Your task to perform on an android device: turn notification dots off Image 0: 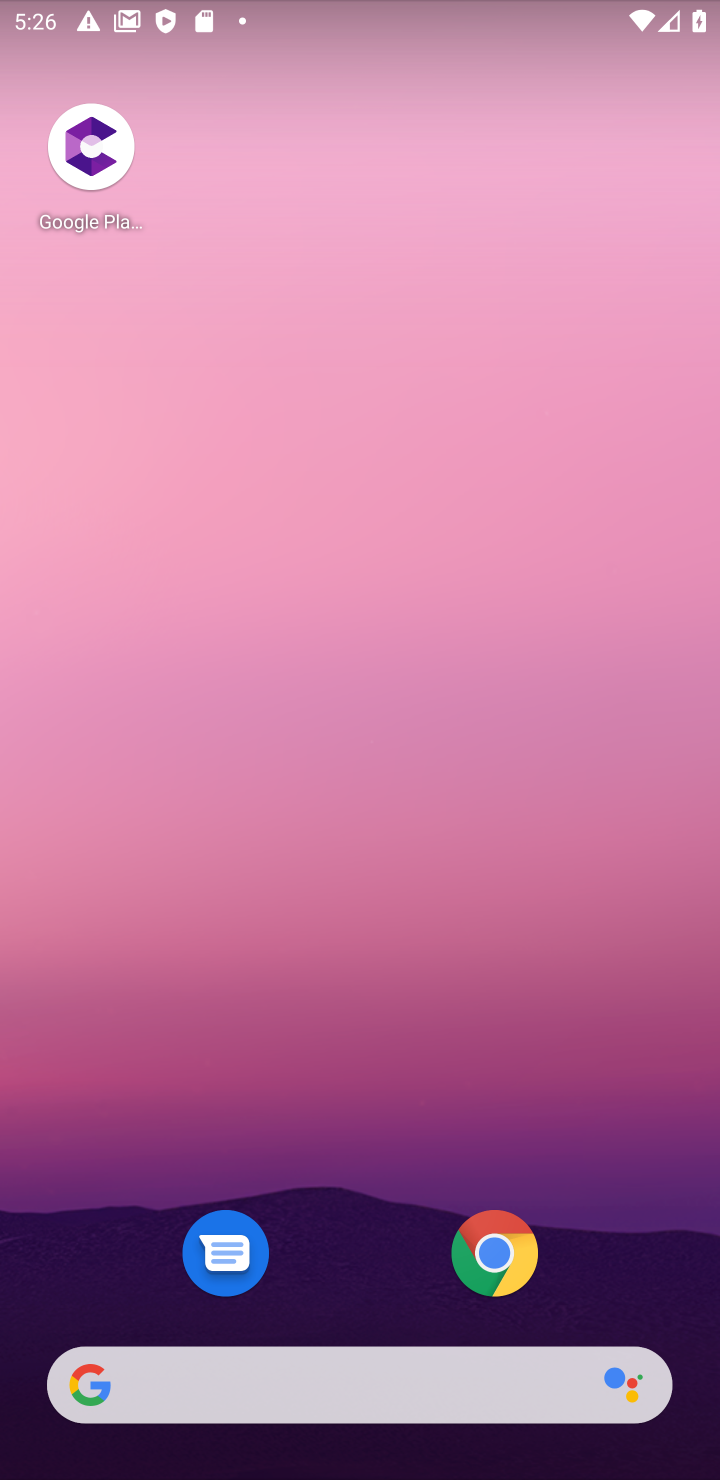
Step 0: drag from (334, 1164) to (324, 8)
Your task to perform on an android device: turn notification dots off Image 1: 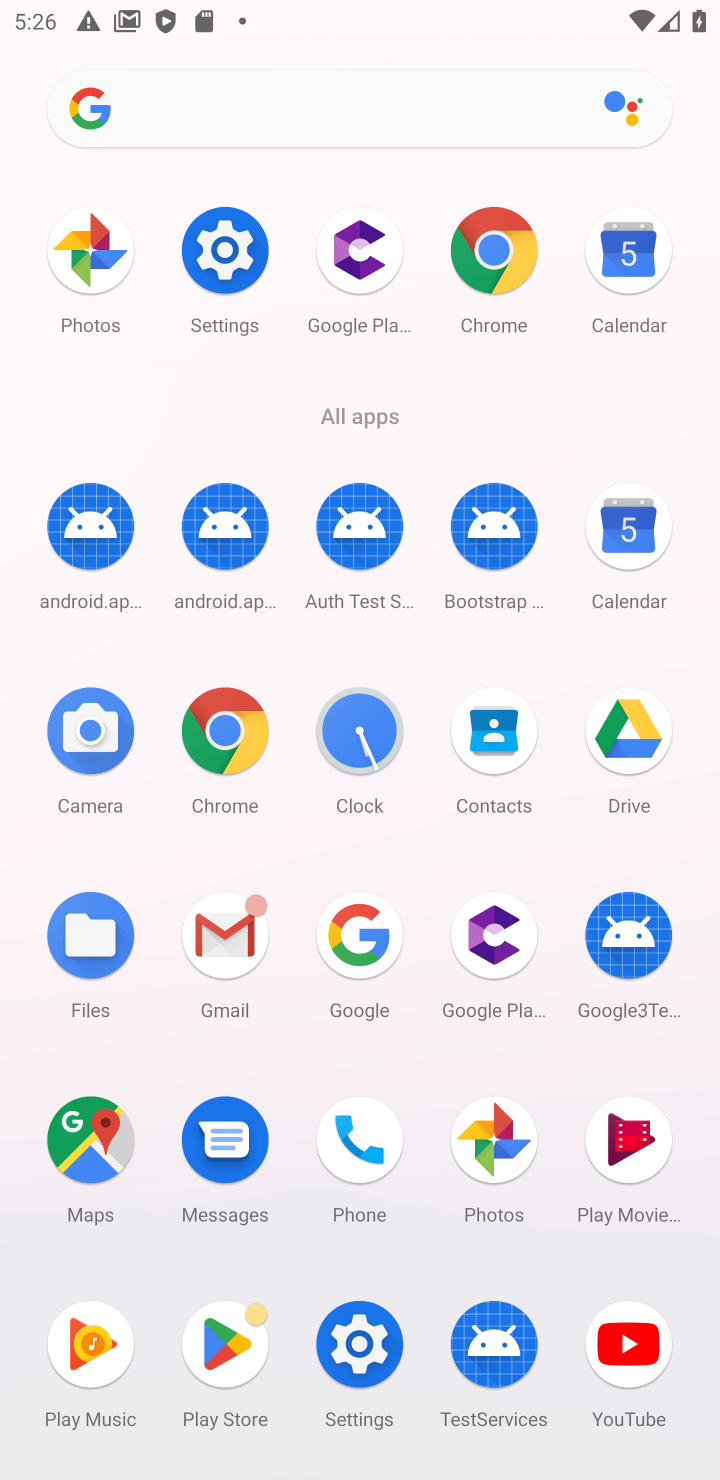
Step 1: click (210, 271)
Your task to perform on an android device: turn notification dots off Image 2: 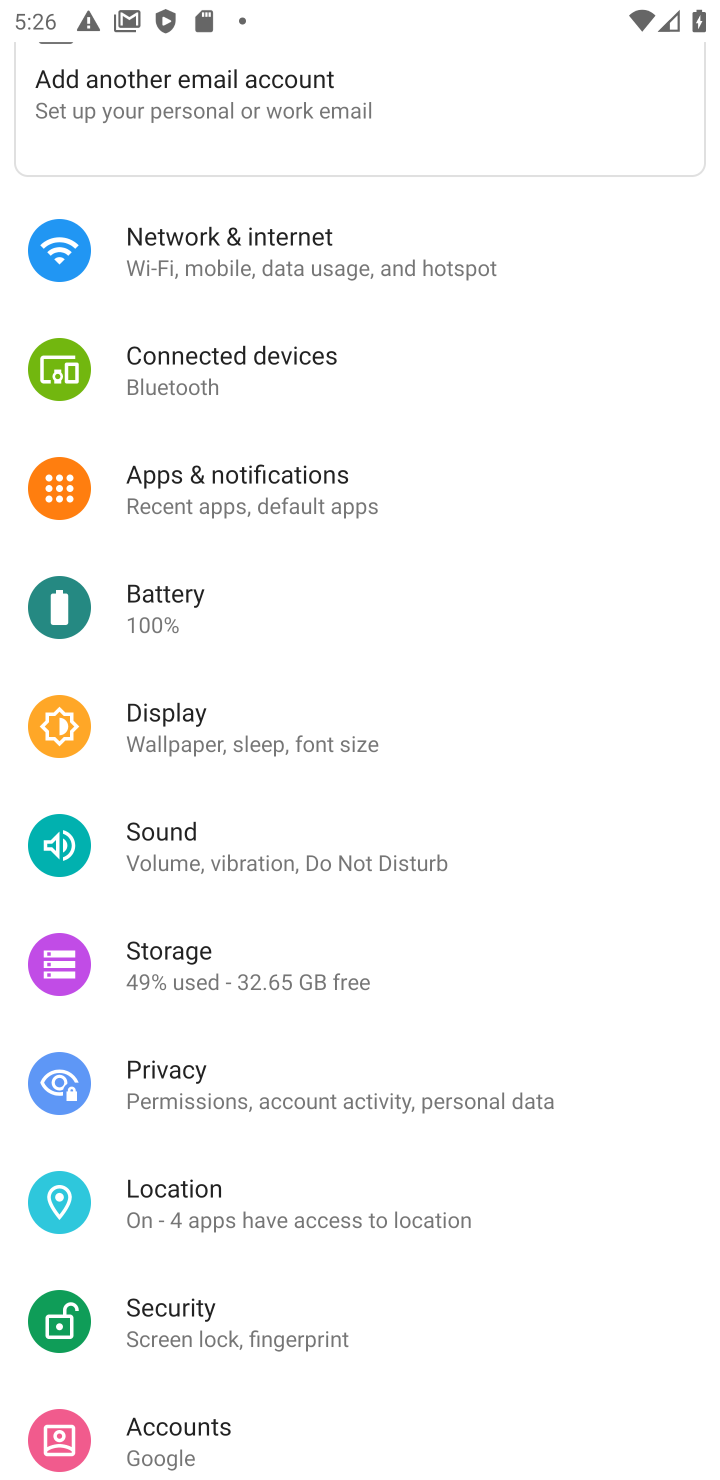
Step 2: click (309, 489)
Your task to perform on an android device: turn notification dots off Image 3: 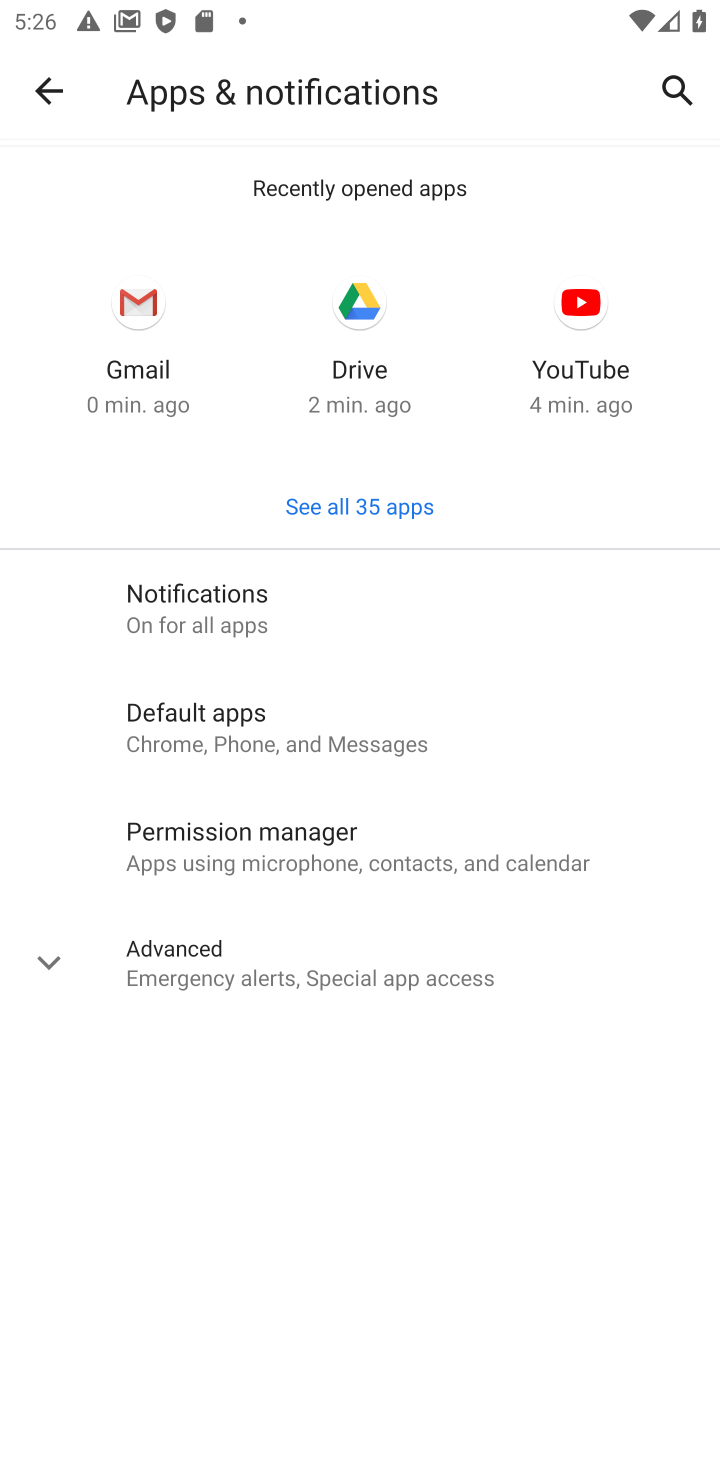
Step 3: click (259, 622)
Your task to perform on an android device: turn notification dots off Image 4: 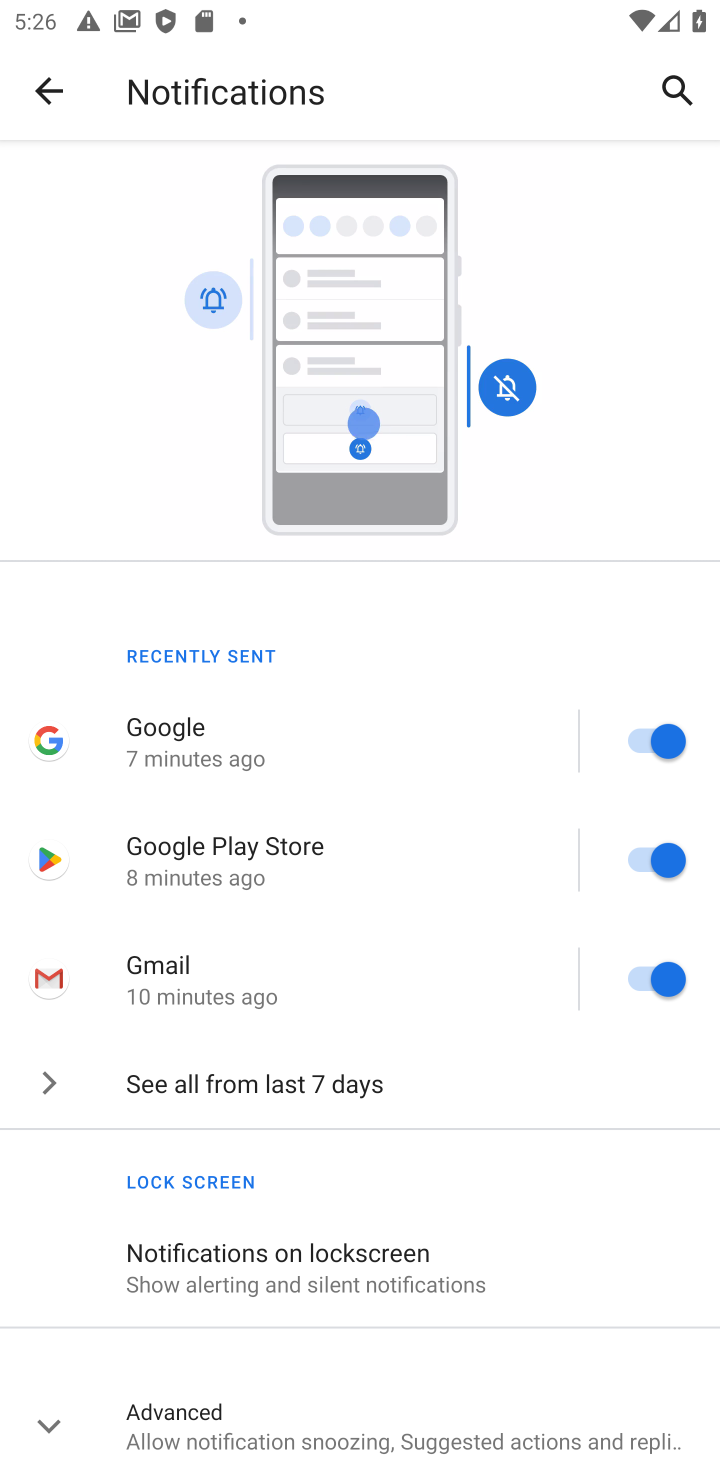
Step 4: click (402, 1376)
Your task to perform on an android device: turn notification dots off Image 5: 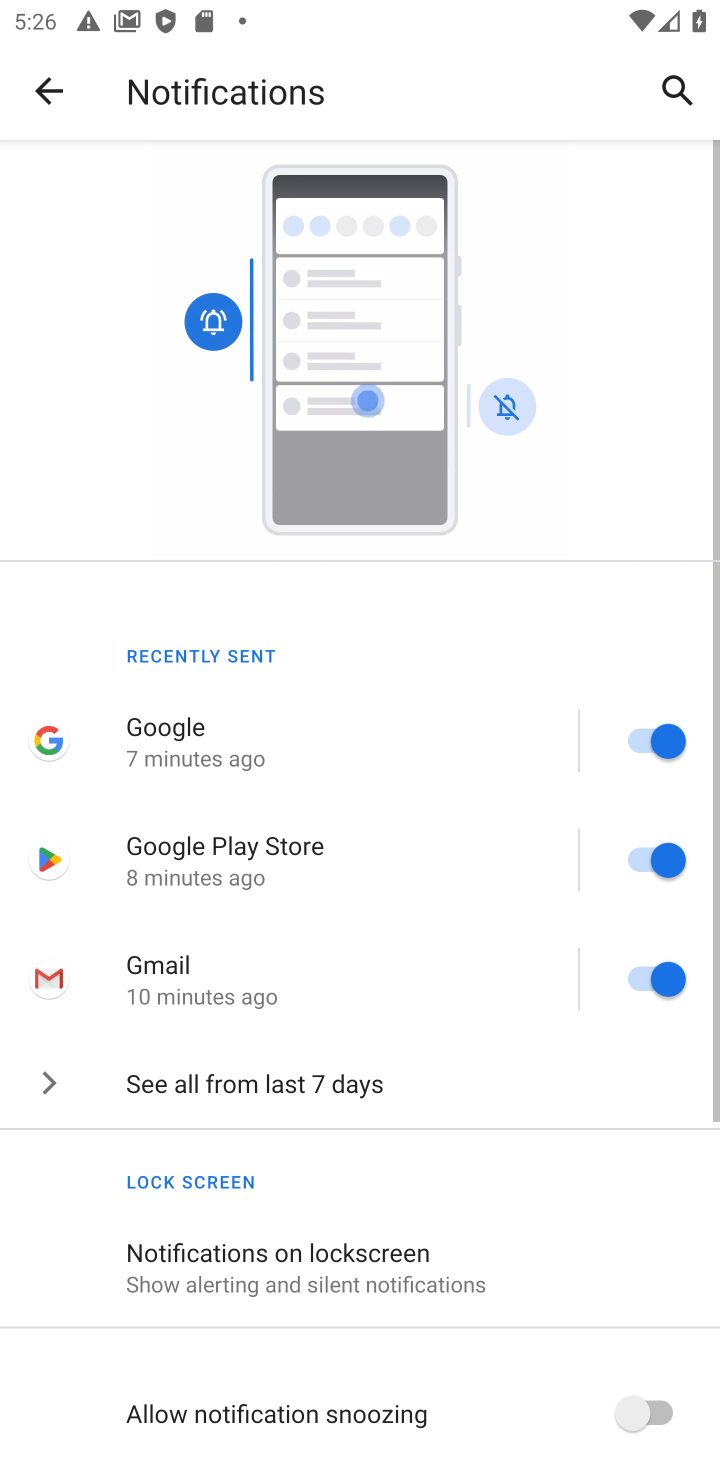
Step 5: drag from (402, 1376) to (277, 386)
Your task to perform on an android device: turn notification dots off Image 6: 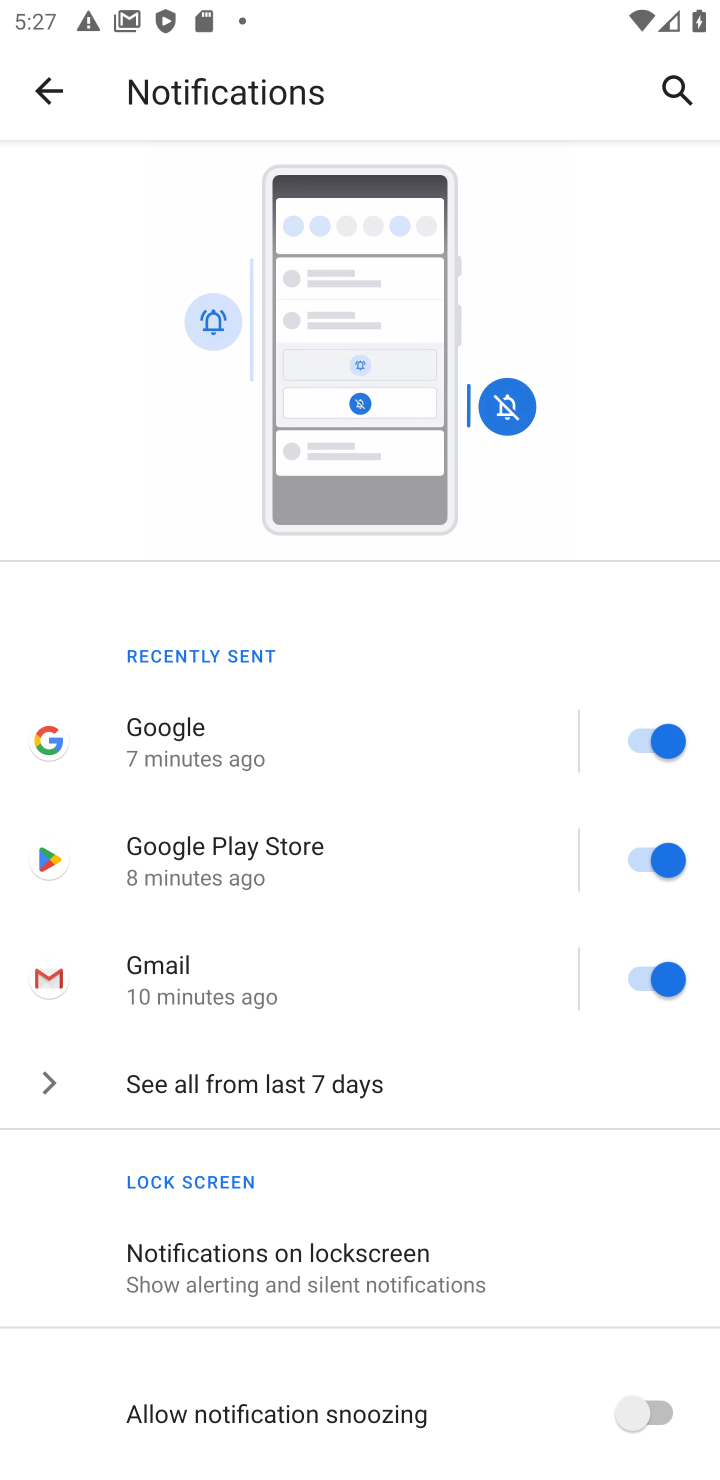
Step 6: drag from (376, 1361) to (373, 636)
Your task to perform on an android device: turn notification dots off Image 7: 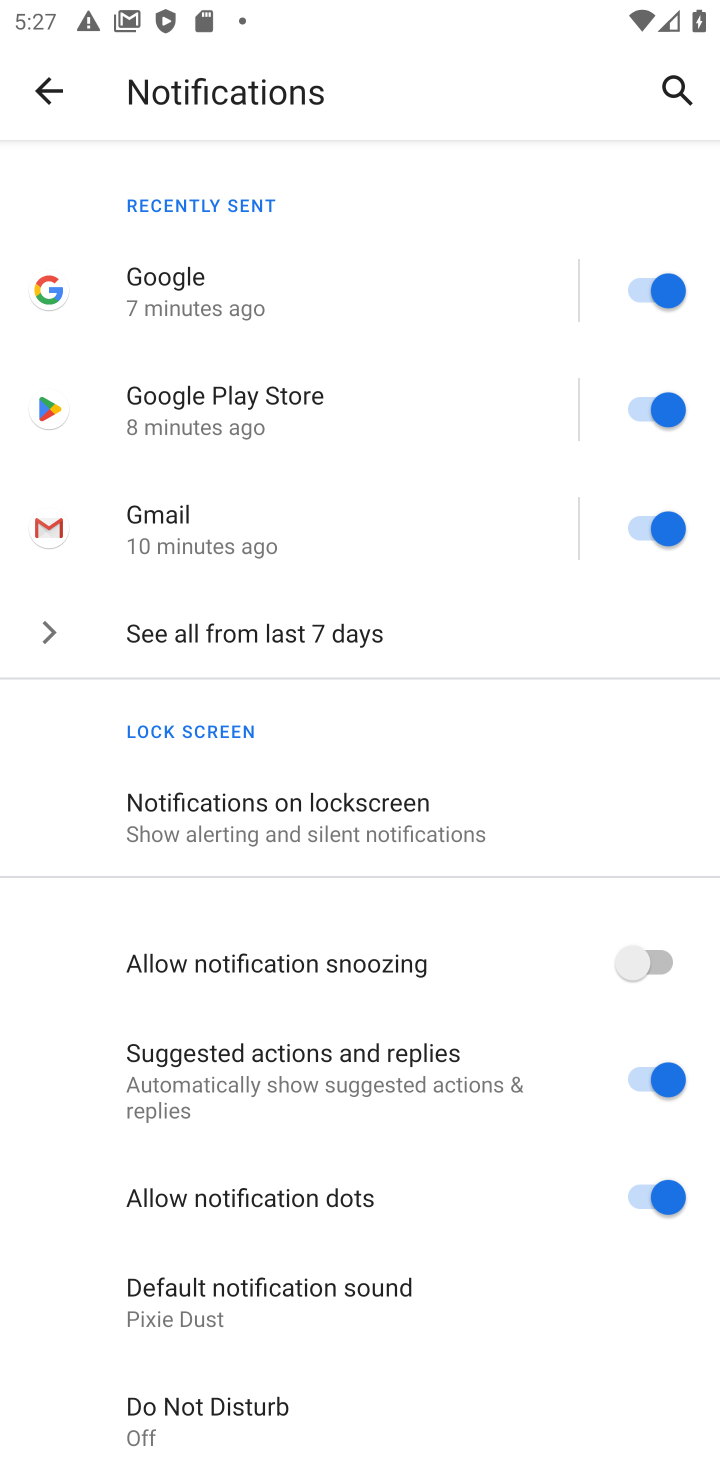
Step 7: click (641, 1205)
Your task to perform on an android device: turn notification dots off Image 8: 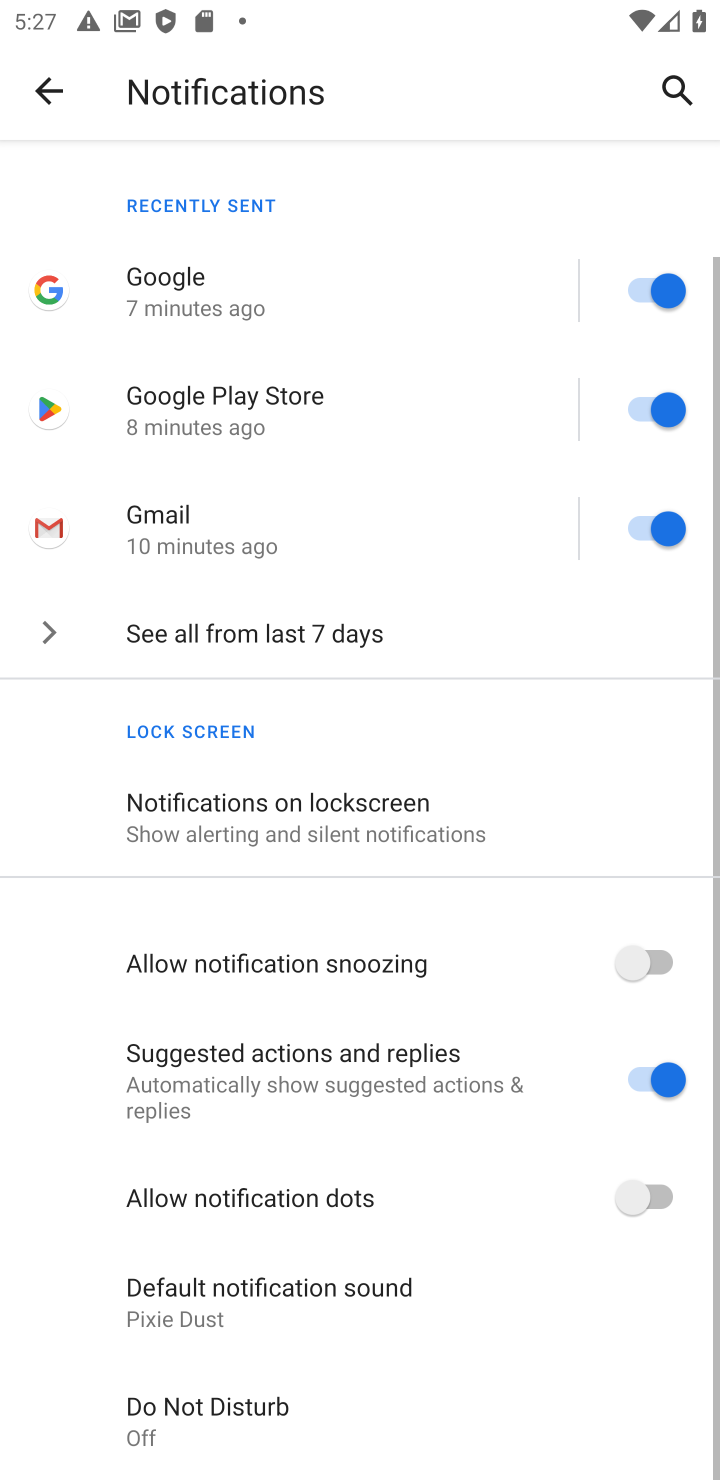
Step 8: task complete